Your task to perform on an android device: toggle priority inbox in the gmail app Image 0: 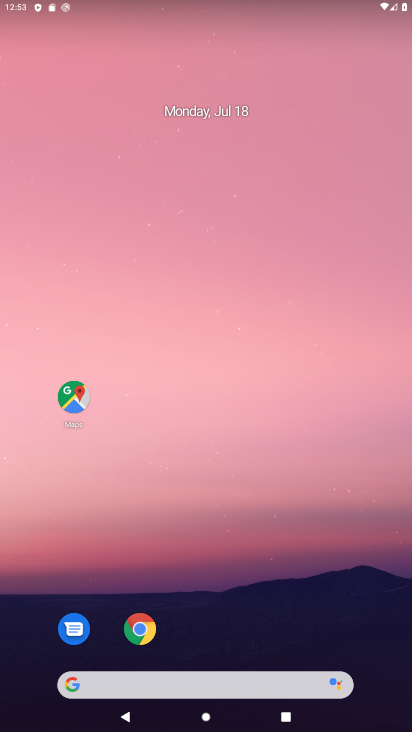
Step 0: drag from (288, 554) to (285, 171)
Your task to perform on an android device: toggle priority inbox in the gmail app Image 1: 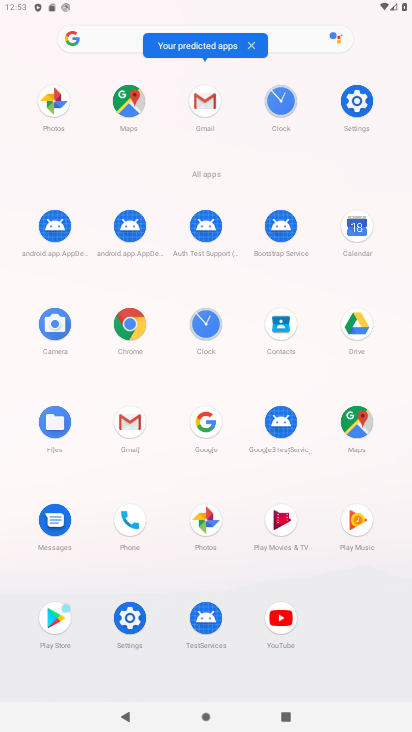
Step 1: click (208, 101)
Your task to perform on an android device: toggle priority inbox in the gmail app Image 2: 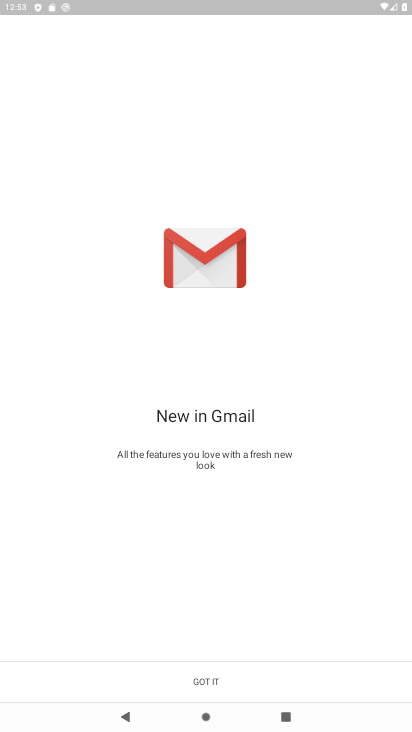
Step 2: click (216, 691)
Your task to perform on an android device: toggle priority inbox in the gmail app Image 3: 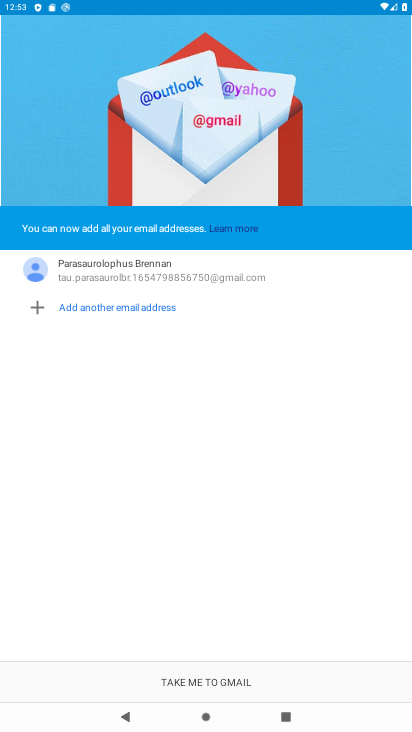
Step 3: click (254, 686)
Your task to perform on an android device: toggle priority inbox in the gmail app Image 4: 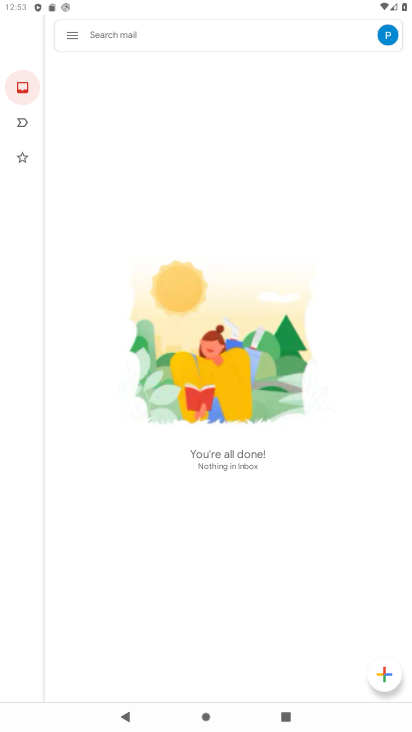
Step 4: click (69, 37)
Your task to perform on an android device: toggle priority inbox in the gmail app Image 5: 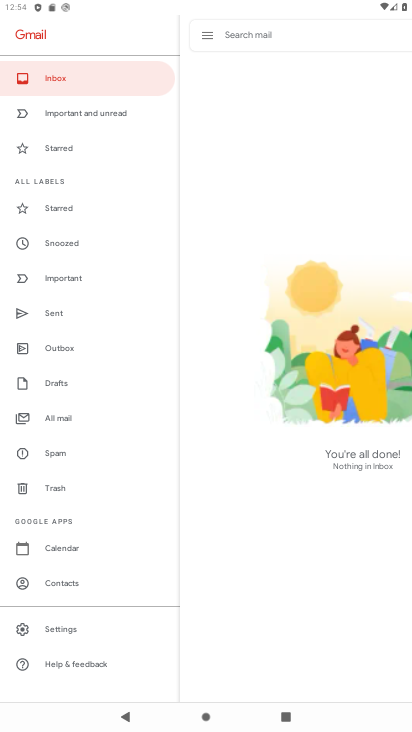
Step 5: click (86, 626)
Your task to perform on an android device: toggle priority inbox in the gmail app Image 6: 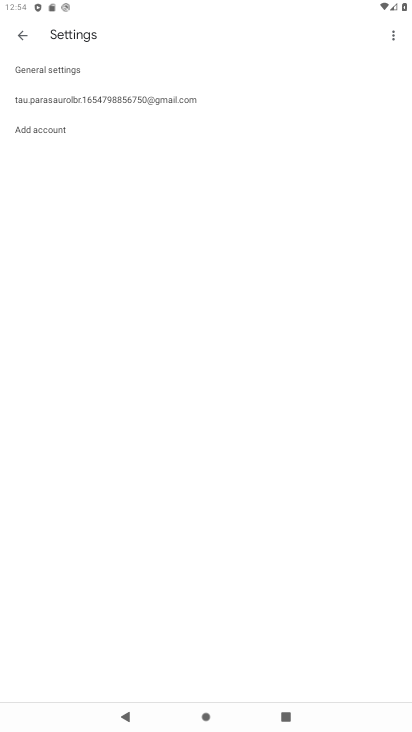
Step 6: click (239, 113)
Your task to perform on an android device: toggle priority inbox in the gmail app Image 7: 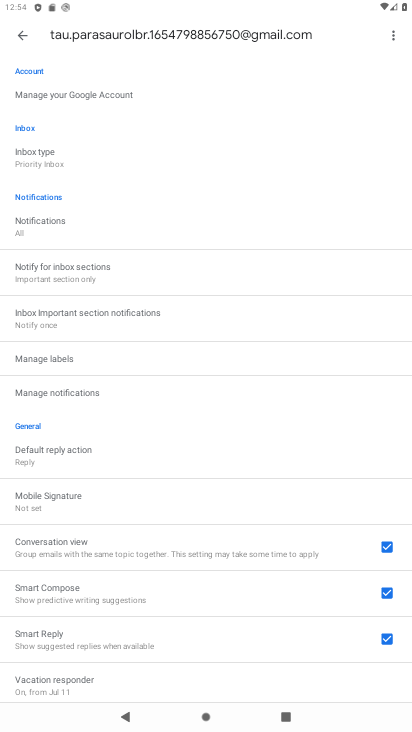
Step 7: click (65, 169)
Your task to perform on an android device: toggle priority inbox in the gmail app Image 8: 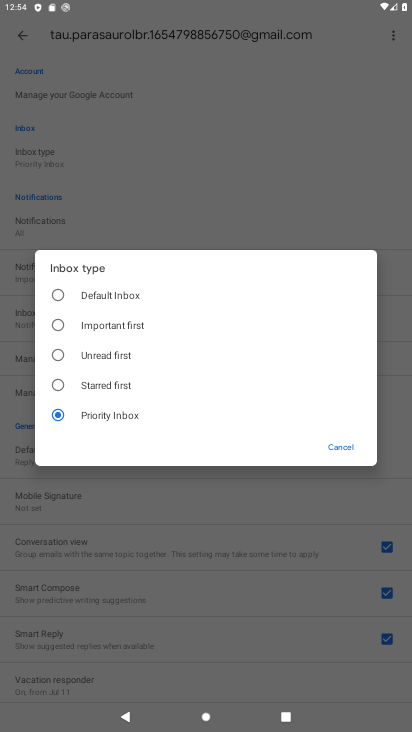
Step 8: click (127, 330)
Your task to perform on an android device: toggle priority inbox in the gmail app Image 9: 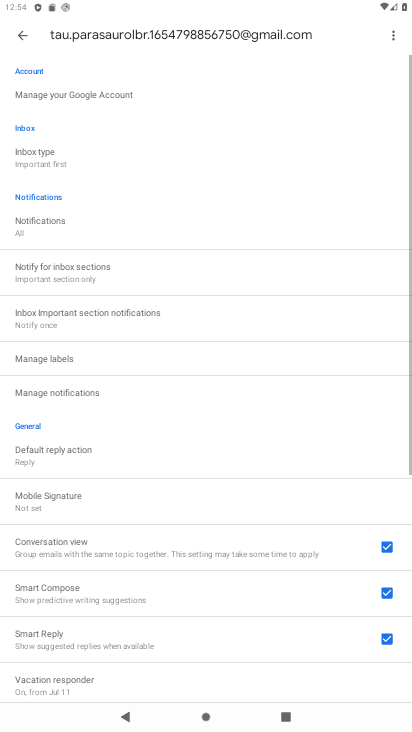
Step 9: task complete